Your task to perform on an android device: allow cookies in the chrome app Image 0: 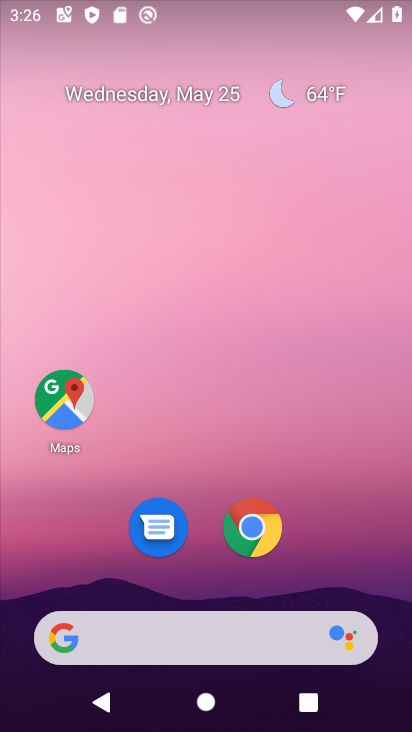
Step 0: click (255, 543)
Your task to perform on an android device: allow cookies in the chrome app Image 1: 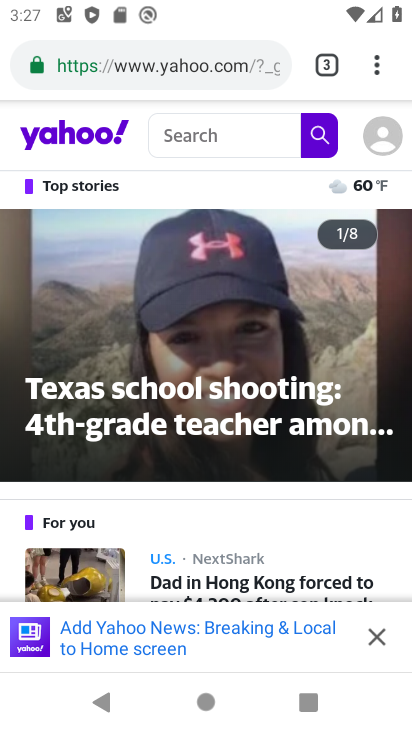
Step 1: drag from (374, 61) to (151, 569)
Your task to perform on an android device: allow cookies in the chrome app Image 2: 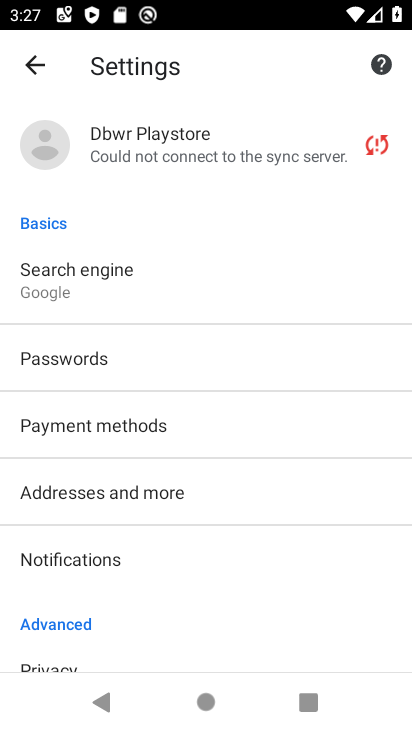
Step 2: drag from (123, 635) to (177, 119)
Your task to perform on an android device: allow cookies in the chrome app Image 3: 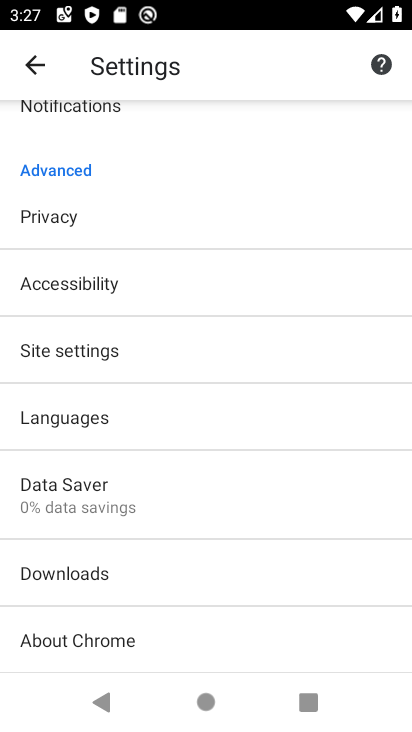
Step 3: click (85, 352)
Your task to perform on an android device: allow cookies in the chrome app Image 4: 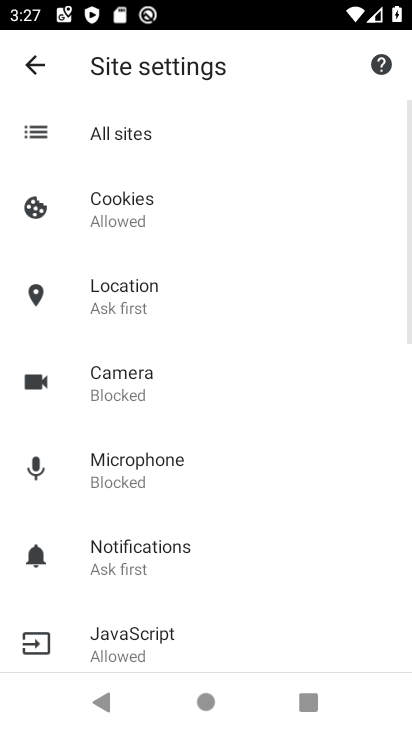
Step 4: click (131, 218)
Your task to perform on an android device: allow cookies in the chrome app Image 5: 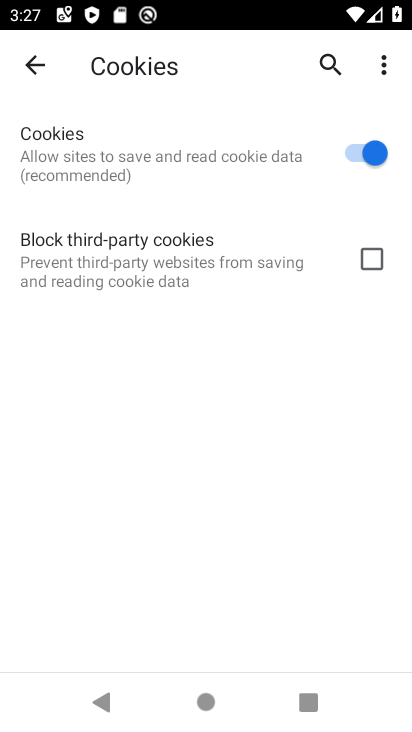
Step 5: task complete